Your task to perform on an android device: Go to internet settings Image 0: 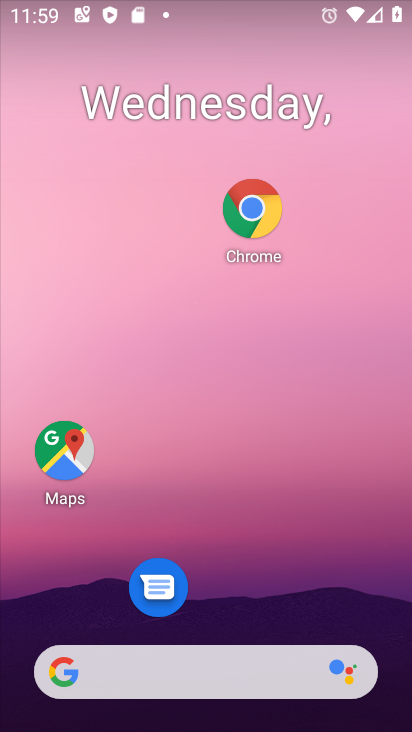
Step 0: drag from (204, 611) to (279, 39)
Your task to perform on an android device: Go to internet settings Image 1: 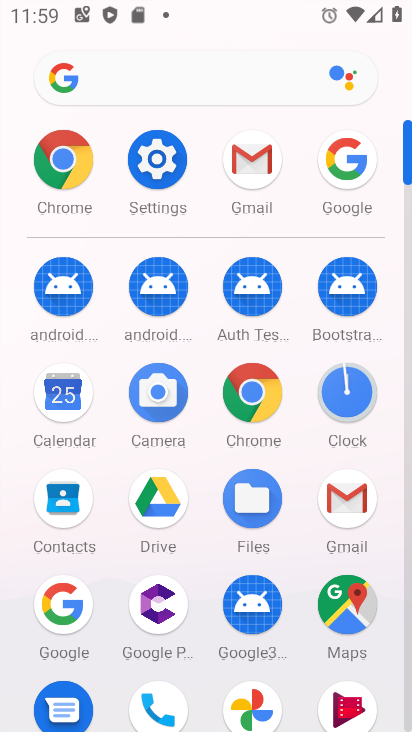
Step 1: click (154, 170)
Your task to perform on an android device: Go to internet settings Image 2: 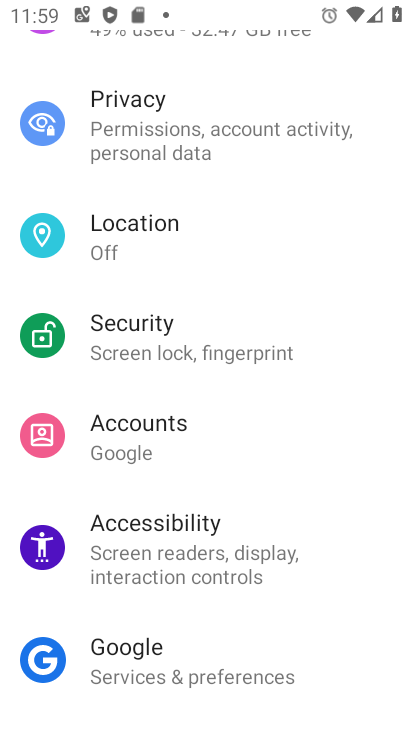
Step 2: drag from (174, 130) to (161, 447)
Your task to perform on an android device: Go to internet settings Image 3: 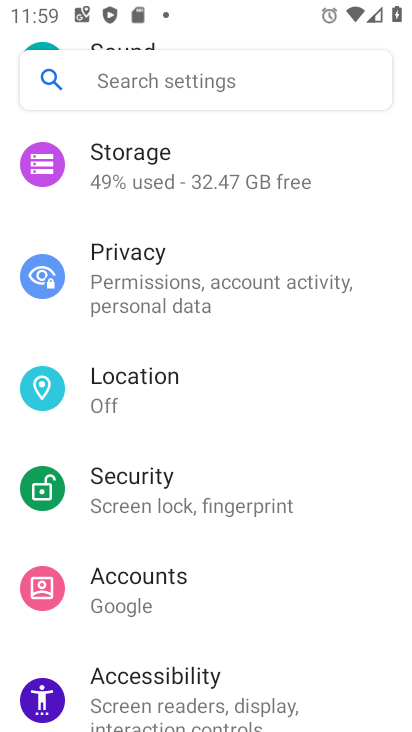
Step 3: drag from (210, 152) to (158, 601)
Your task to perform on an android device: Go to internet settings Image 4: 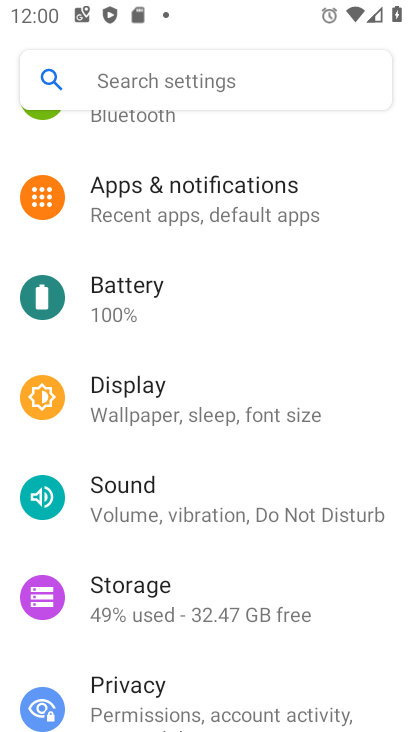
Step 4: drag from (157, 226) to (152, 582)
Your task to perform on an android device: Go to internet settings Image 5: 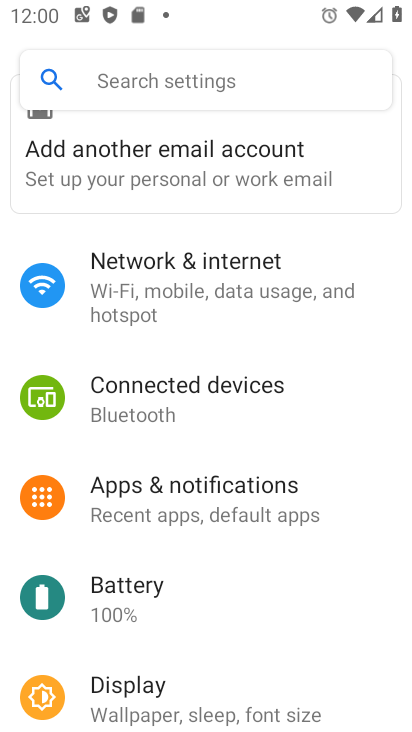
Step 5: click (135, 294)
Your task to perform on an android device: Go to internet settings Image 6: 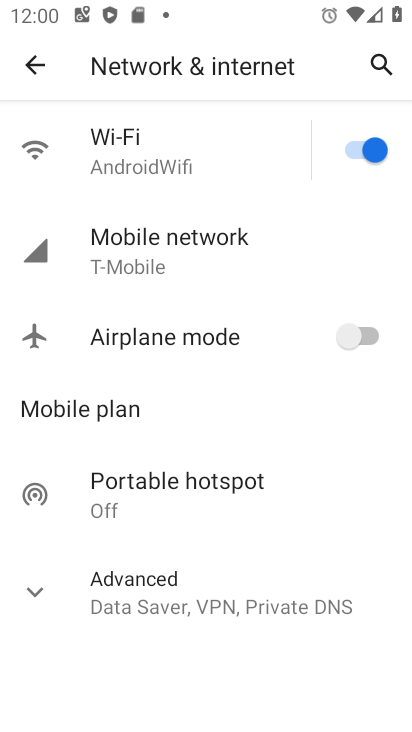
Step 6: task complete